Your task to perform on an android device: Open the calendar and show me this week's events? Image 0: 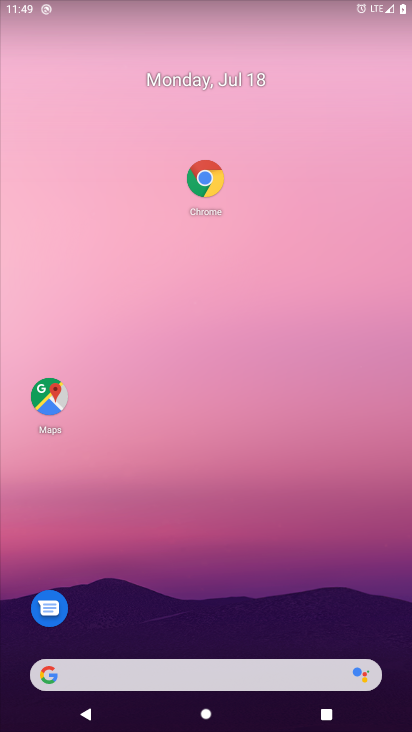
Step 0: drag from (8, 699) to (261, 90)
Your task to perform on an android device: Open the calendar and show me this week's events? Image 1: 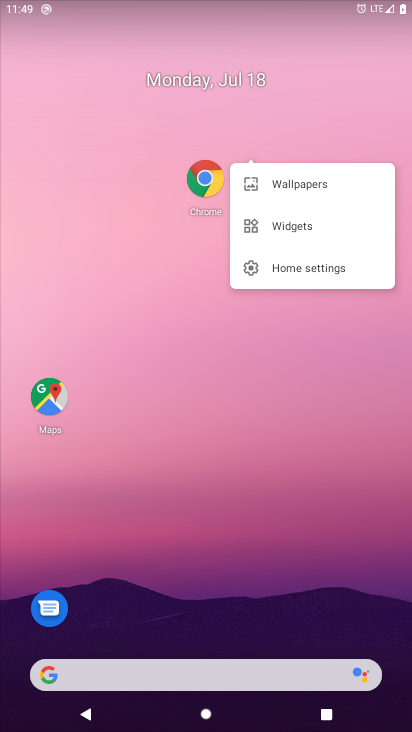
Step 1: drag from (17, 702) to (246, 127)
Your task to perform on an android device: Open the calendar and show me this week's events? Image 2: 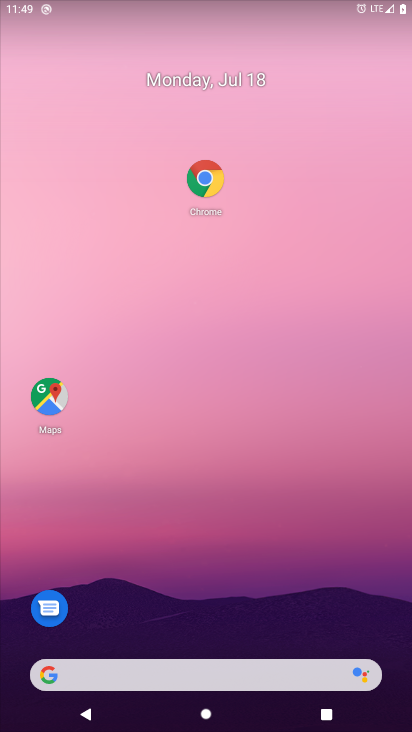
Step 2: drag from (59, 632) to (411, 224)
Your task to perform on an android device: Open the calendar and show me this week's events? Image 3: 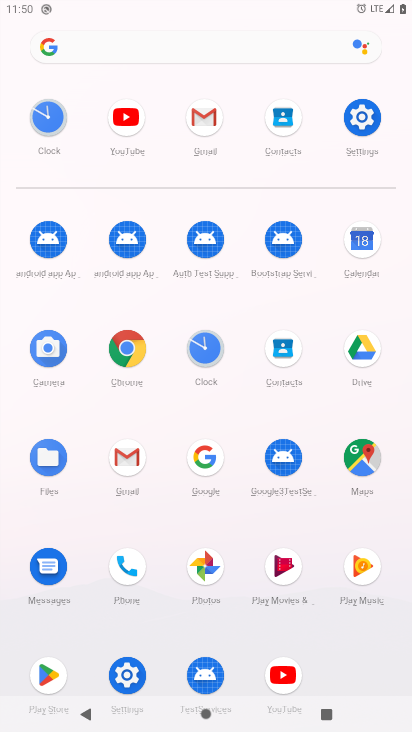
Step 3: click (349, 249)
Your task to perform on an android device: Open the calendar and show me this week's events? Image 4: 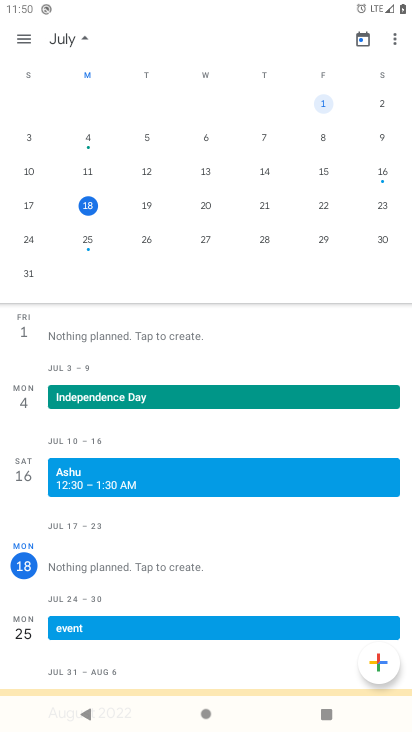
Step 4: task complete